Your task to perform on an android device: Add asus rog to the cart on amazon Image 0: 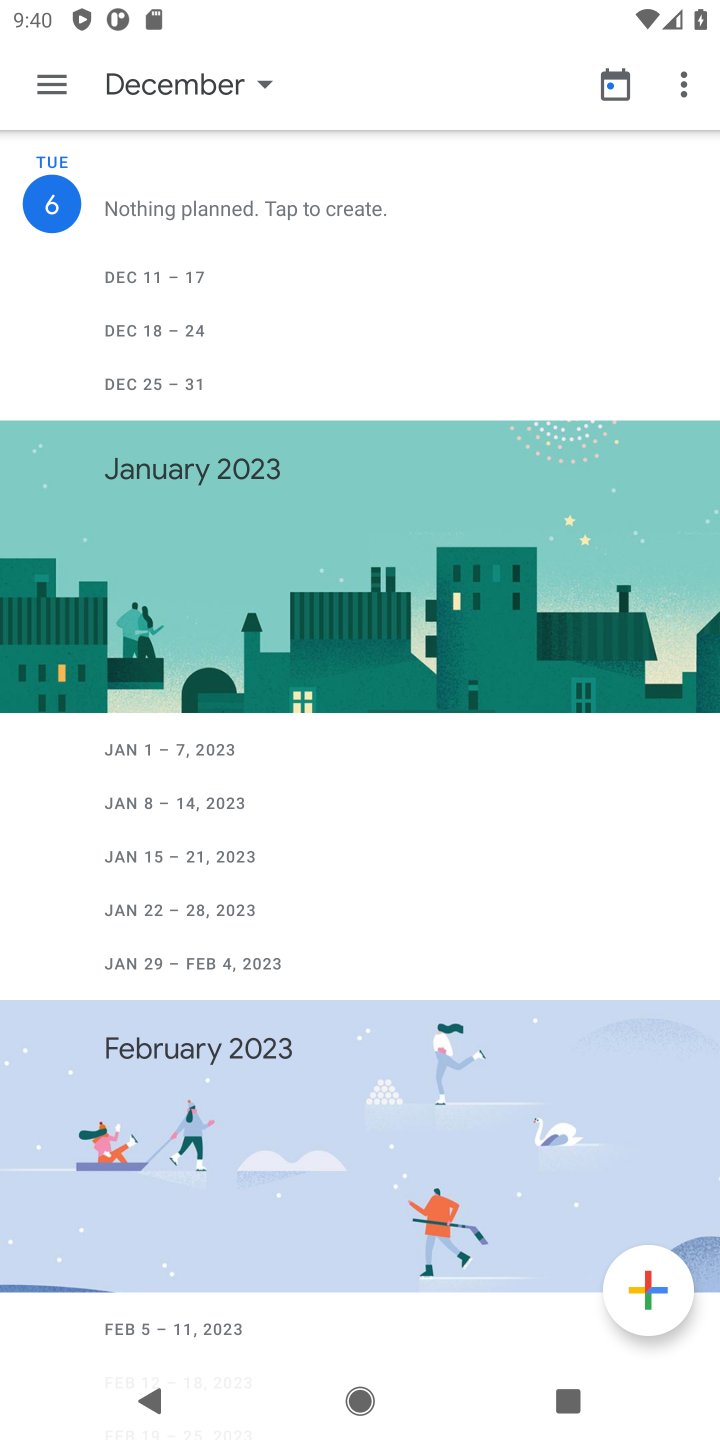
Step 0: press home button
Your task to perform on an android device: Add asus rog to the cart on amazon Image 1: 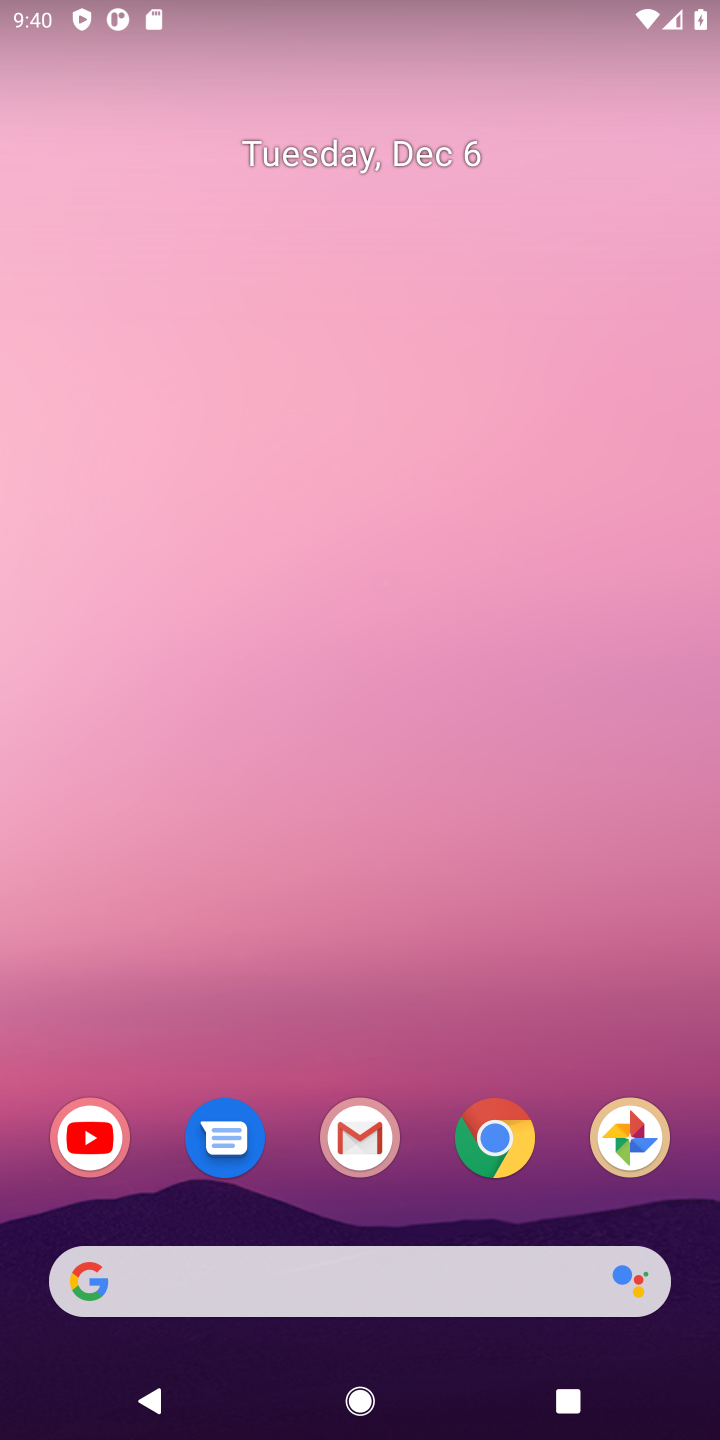
Step 1: click (491, 1139)
Your task to perform on an android device: Add asus rog to the cart on amazon Image 2: 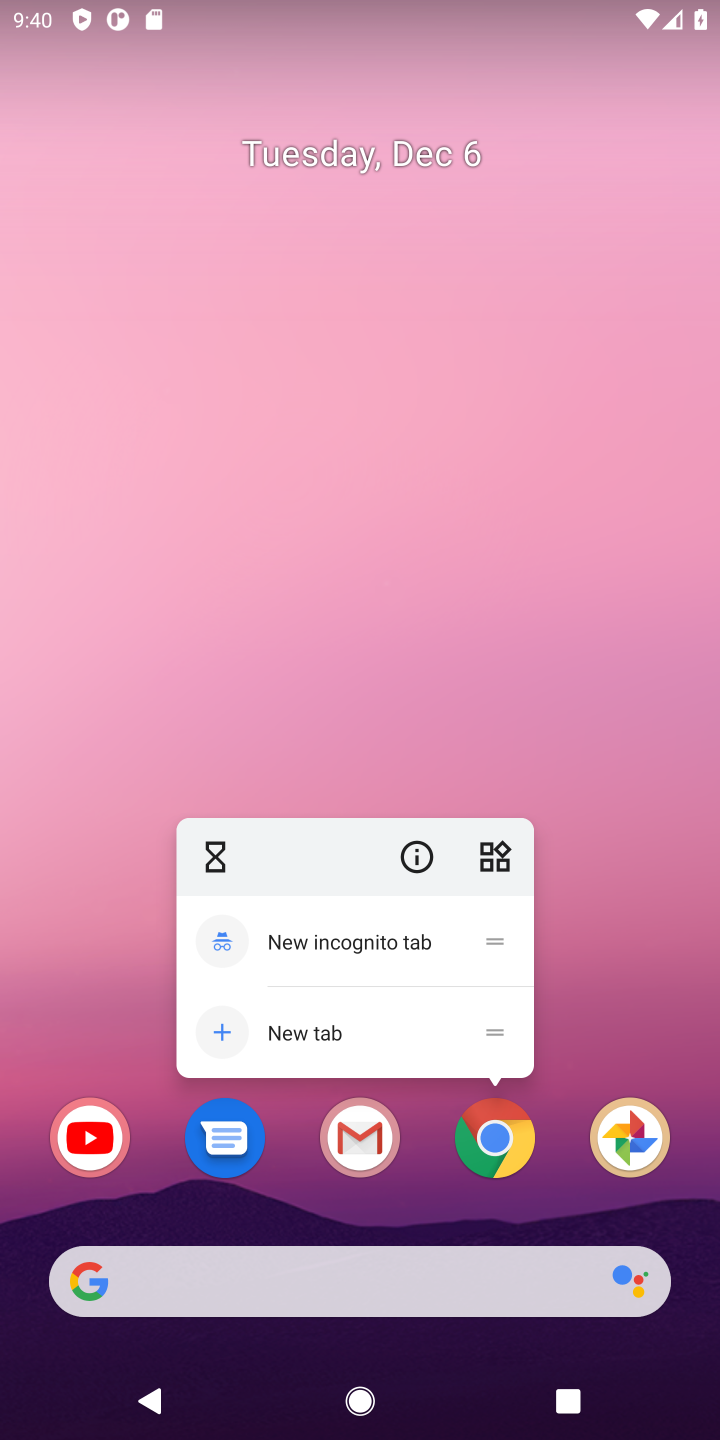
Step 2: click (511, 1147)
Your task to perform on an android device: Add asus rog to the cart on amazon Image 3: 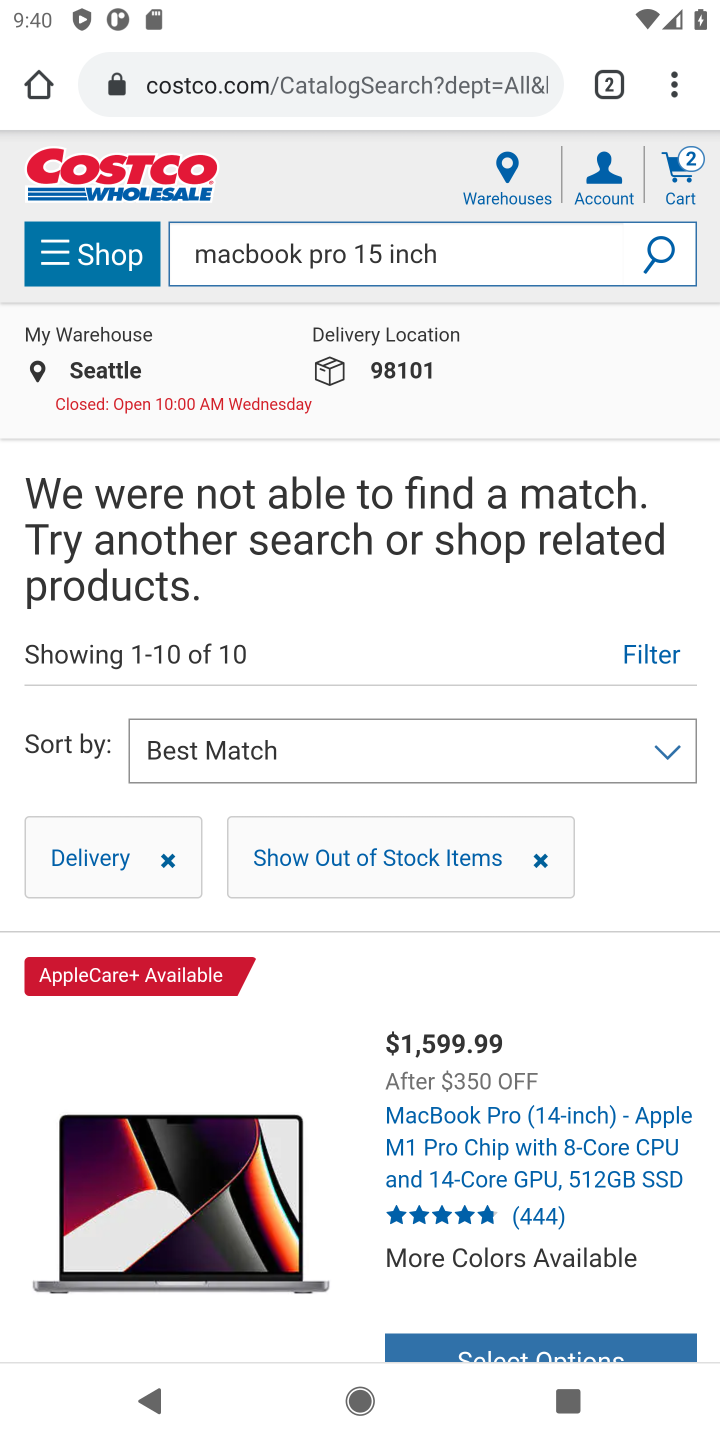
Step 3: click (320, 93)
Your task to perform on an android device: Add asus rog to the cart on amazon Image 4: 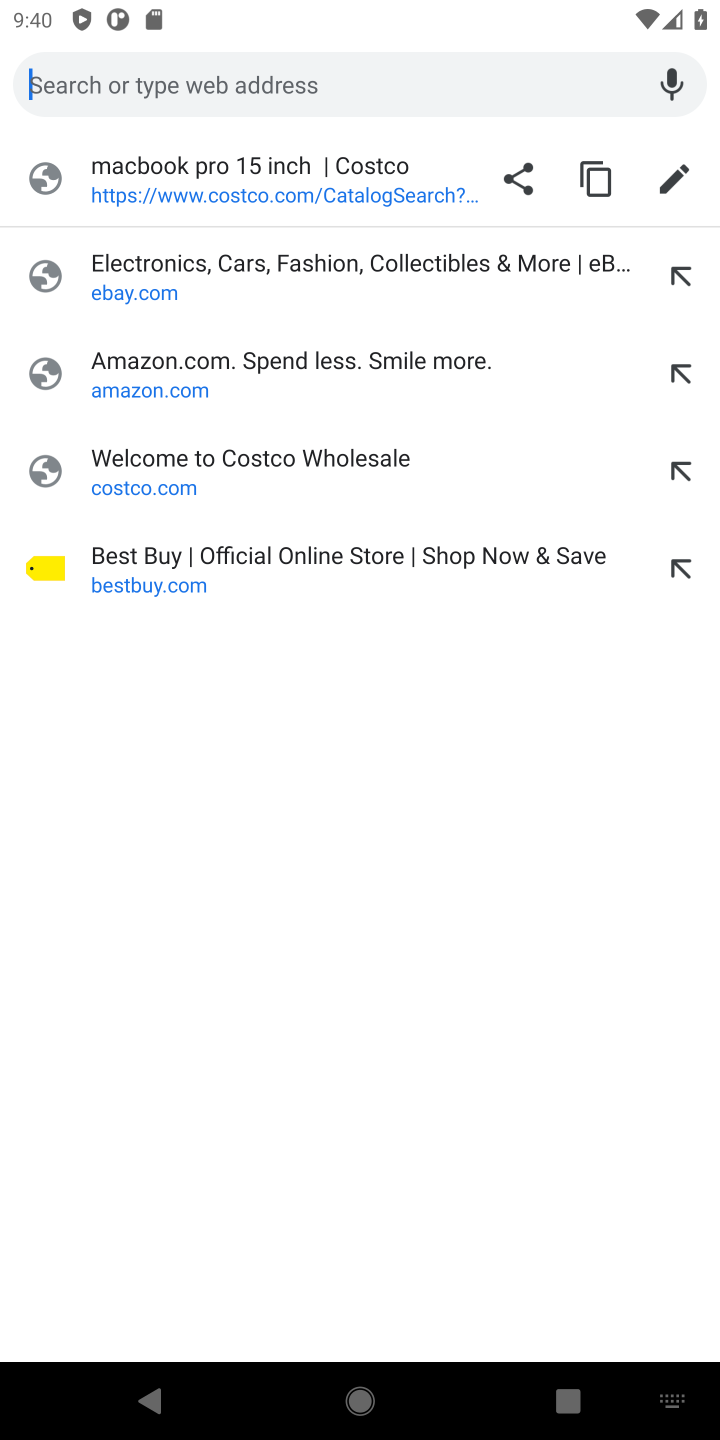
Step 4: click (134, 388)
Your task to perform on an android device: Add asus rog to the cart on amazon Image 5: 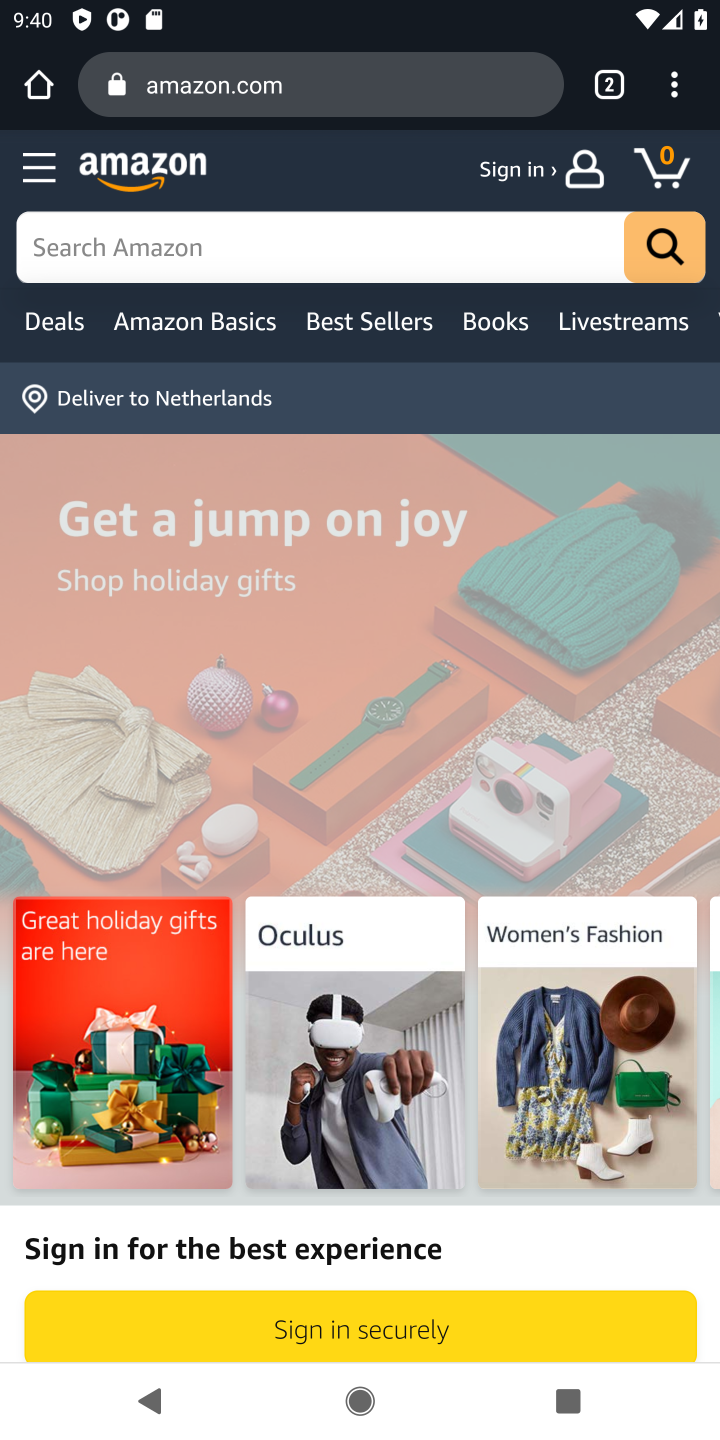
Step 5: click (95, 244)
Your task to perform on an android device: Add asus rog to the cart on amazon Image 6: 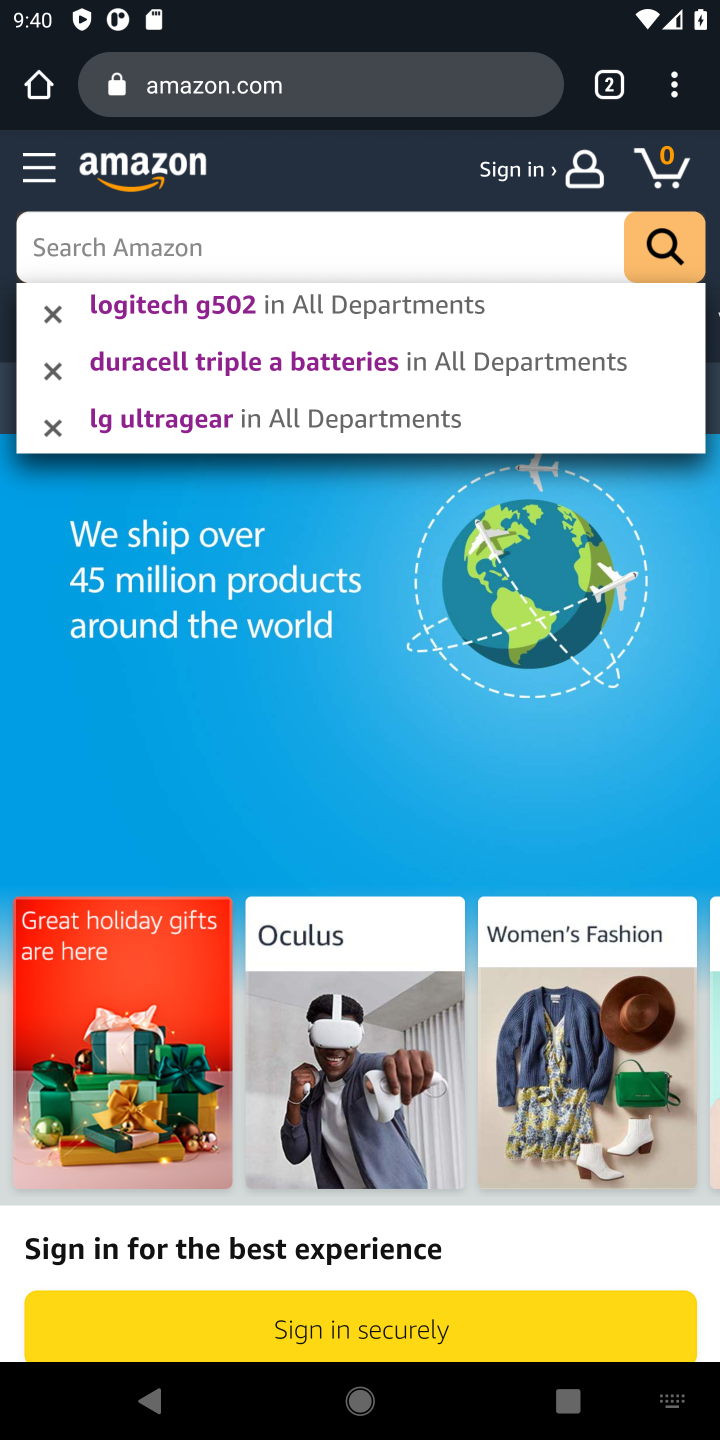
Step 6: type "asus rog"
Your task to perform on an android device: Add asus rog to the cart on amazon Image 7: 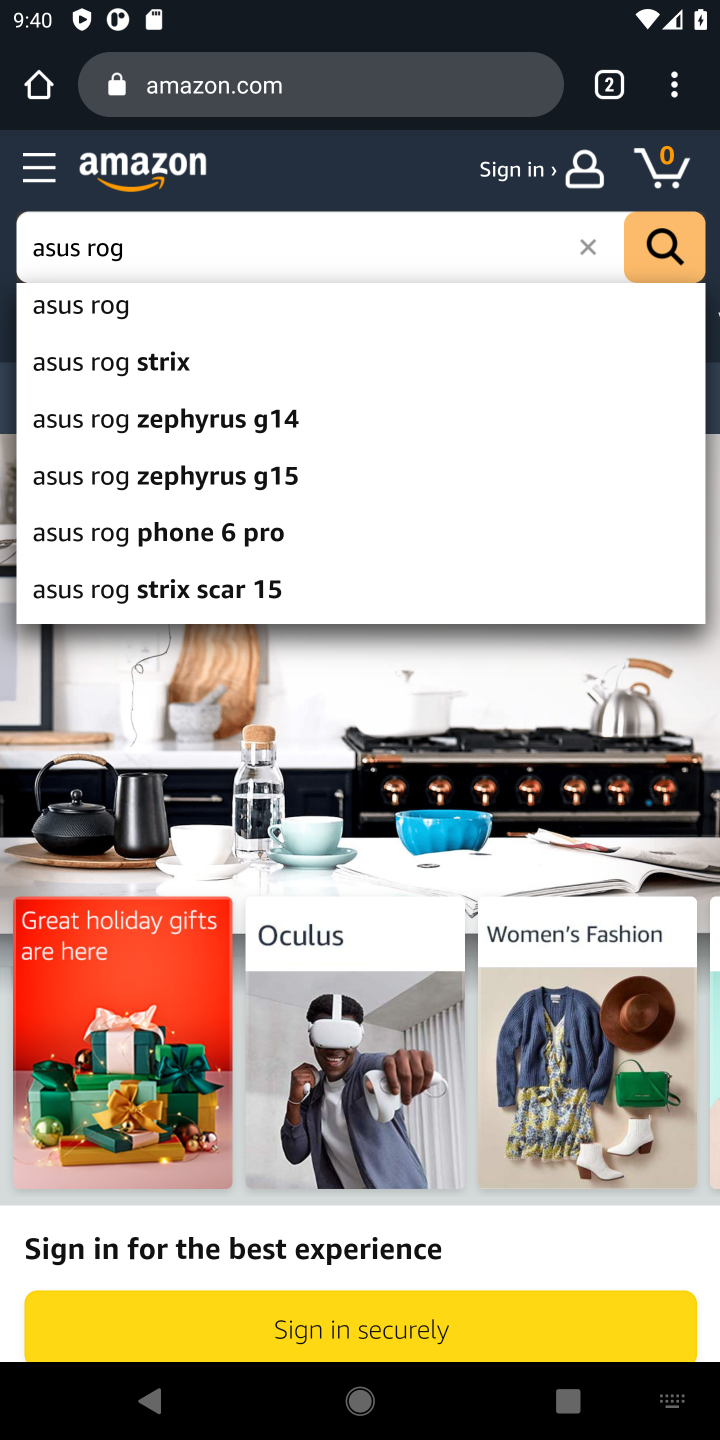
Step 7: click (60, 320)
Your task to perform on an android device: Add asus rog to the cart on amazon Image 8: 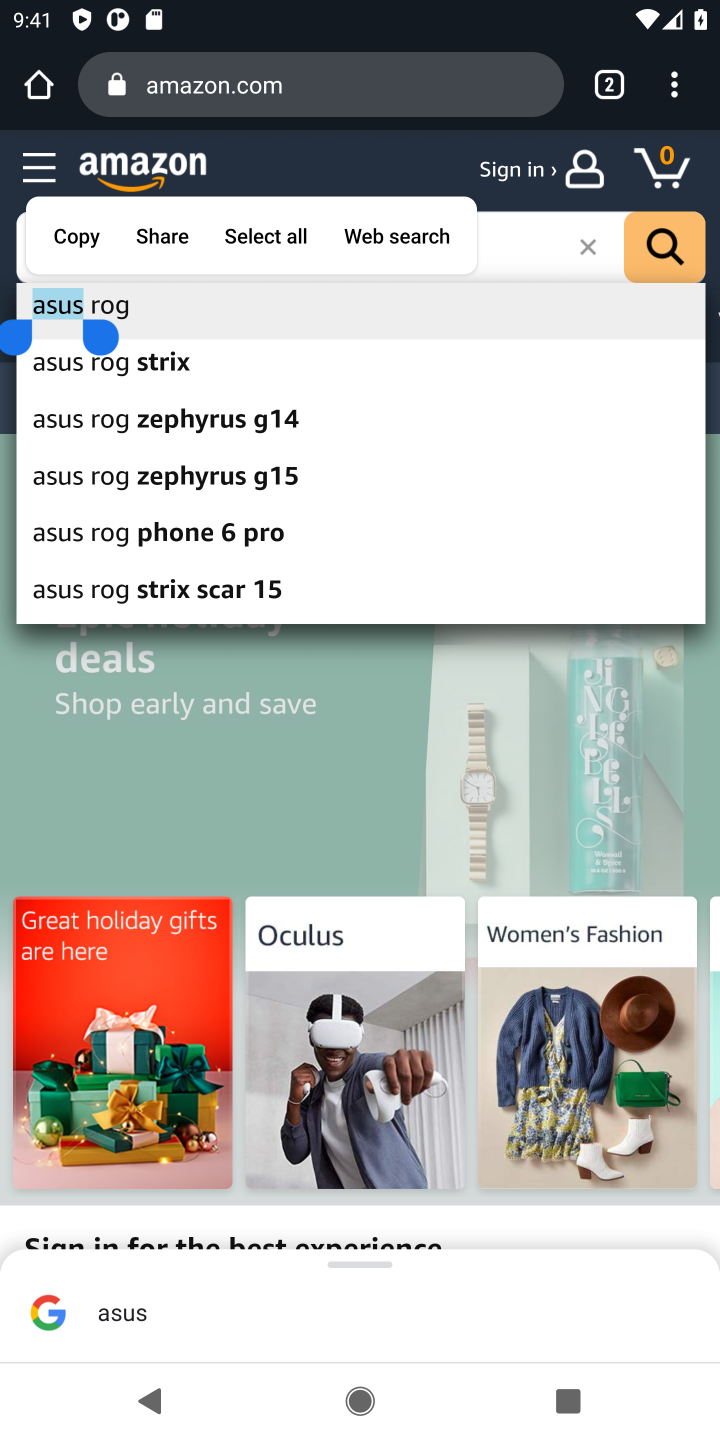
Step 8: click (105, 309)
Your task to perform on an android device: Add asus rog to the cart on amazon Image 9: 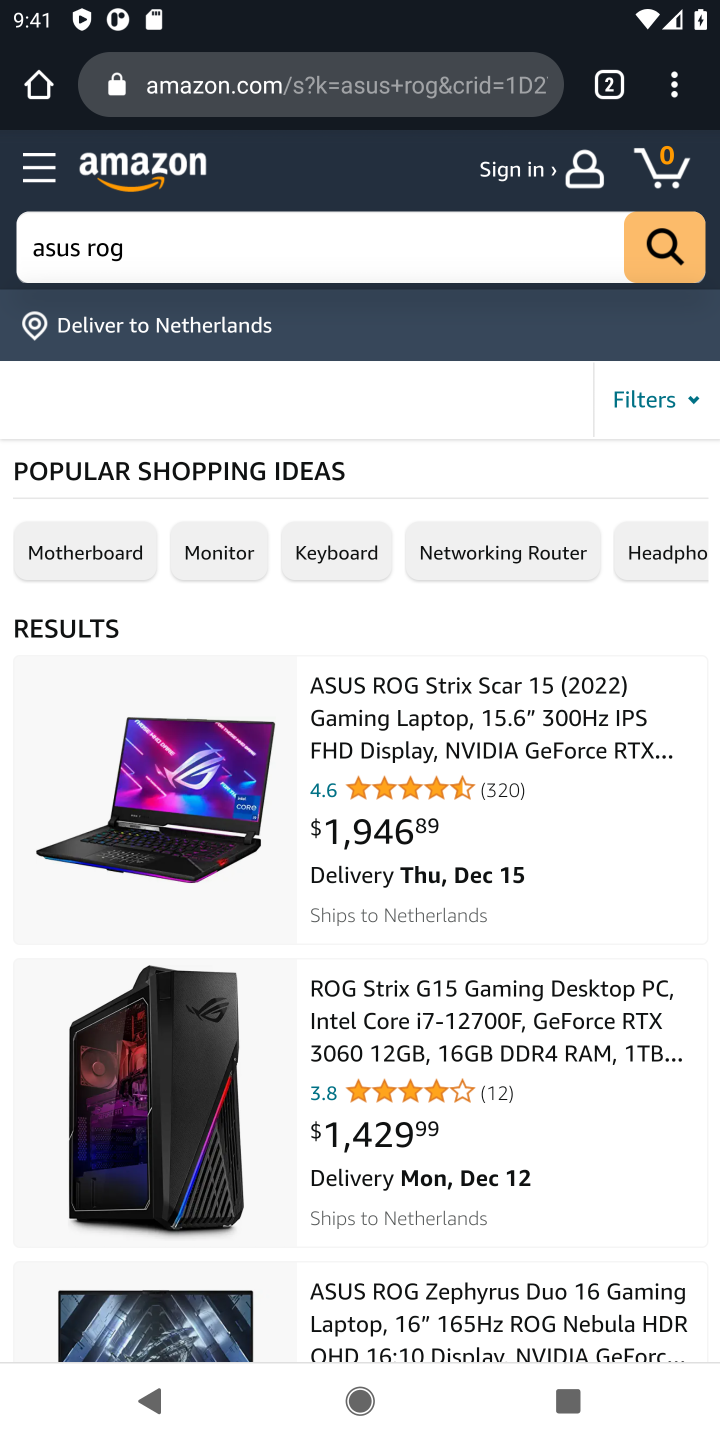
Step 9: click (354, 749)
Your task to perform on an android device: Add asus rog to the cart on amazon Image 10: 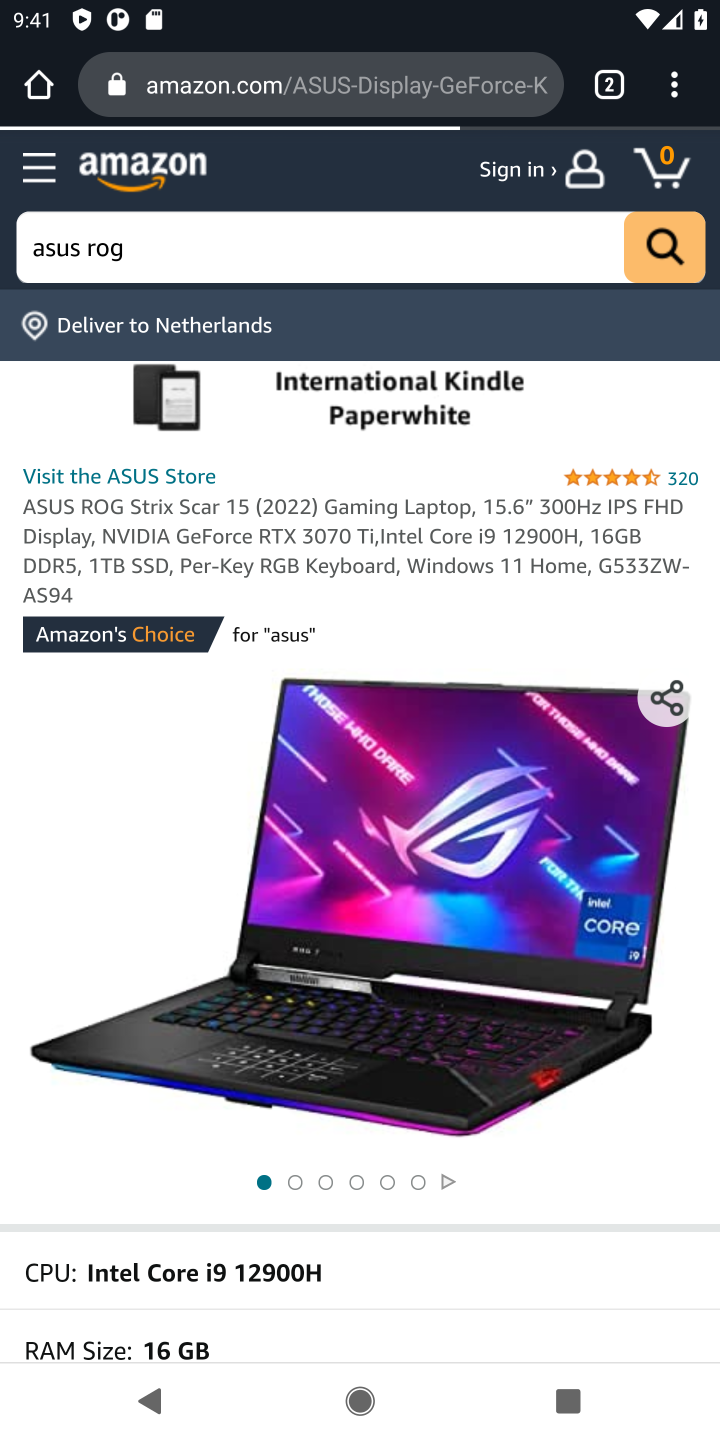
Step 10: drag from (492, 1147) to (482, 492)
Your task to perform on an android device: Add asus rog to the cart on amazon Image 11: 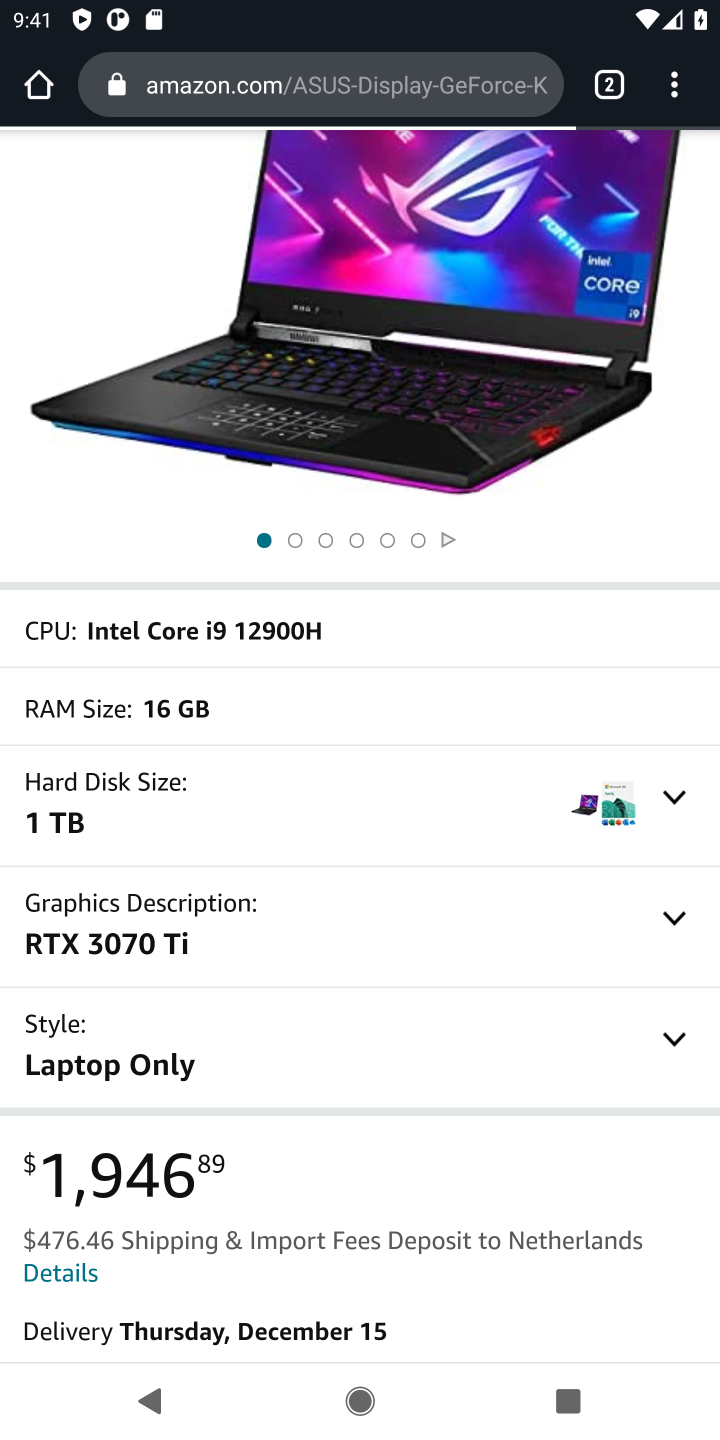
Step 11: drag from (395, 976) to (394, 685)
Your task to perform on an android device: Add asus rog to the cart on amazon Image 12: 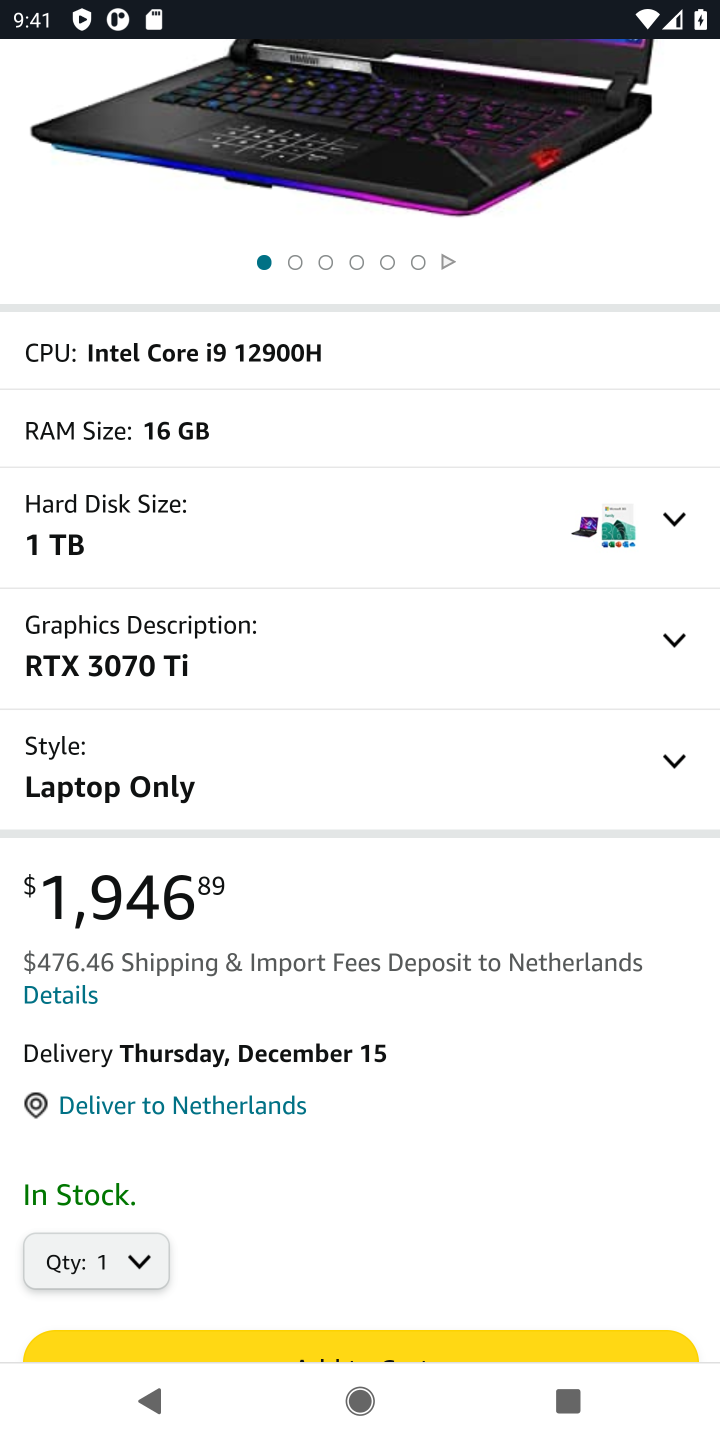
Step 12: drag from (383, 1030) to (392, 707)
Your task to perform on an android device: Add asus rog to the cart on amazon Image 13: 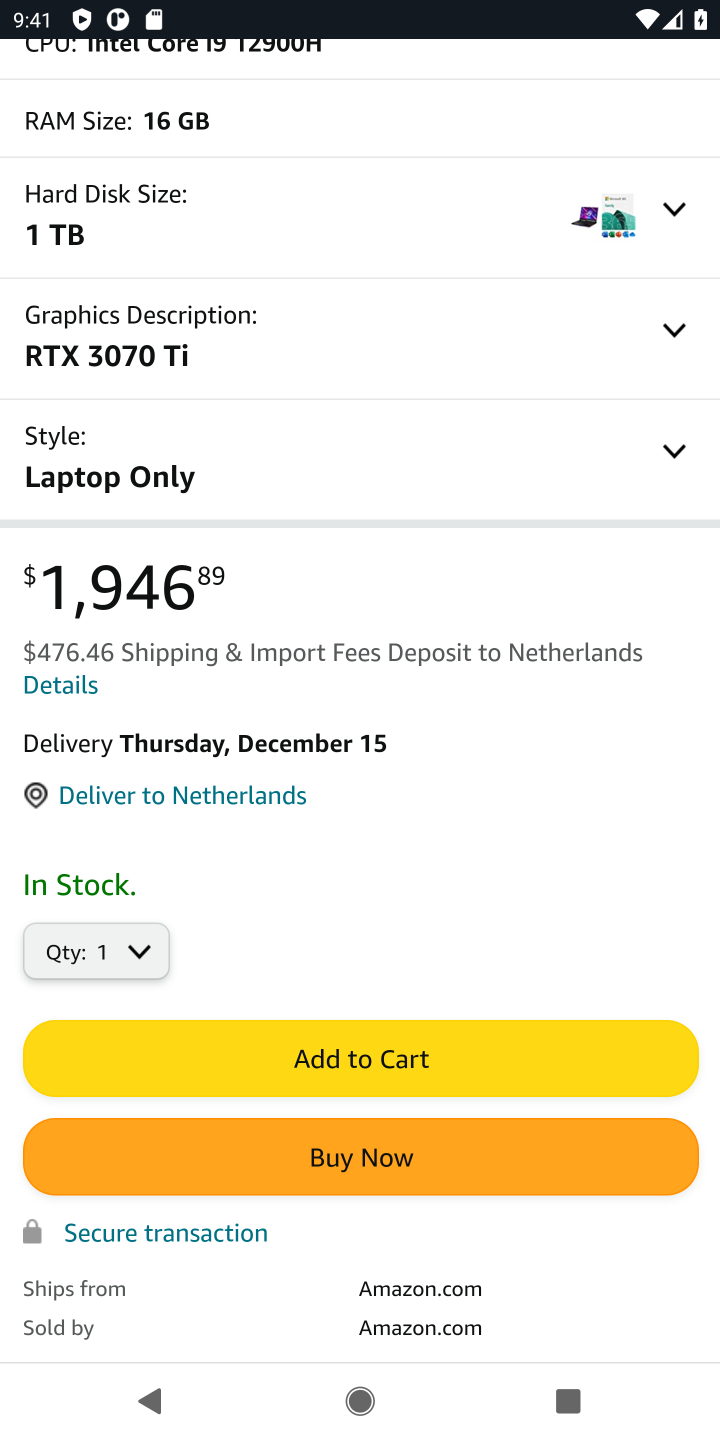
Step 13: click (327, 1064)
Your task to perform on an android device: Add asus rog to the cart on amazon Image 14: 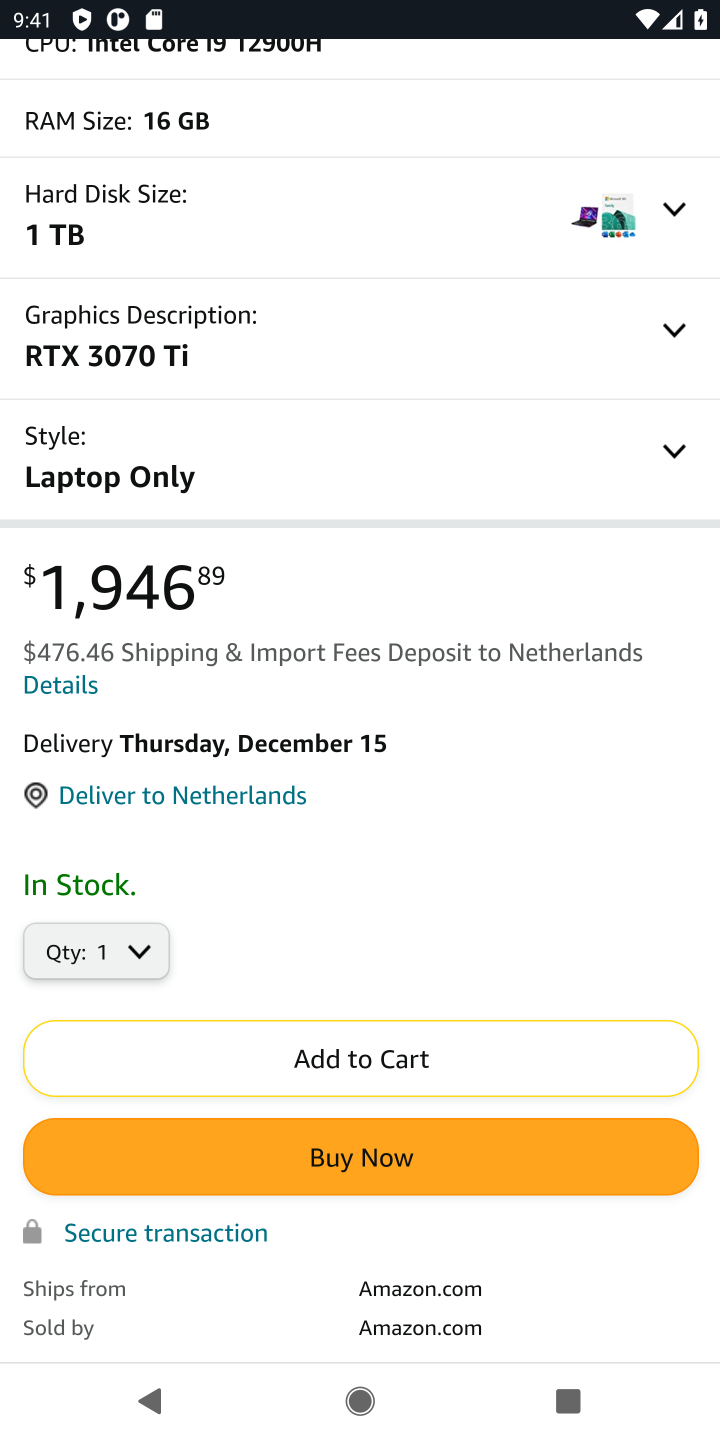
Step 14: click (381, 1050)
Your task to perform on an android device: Add asus rog to the cart on amazon Image 15: 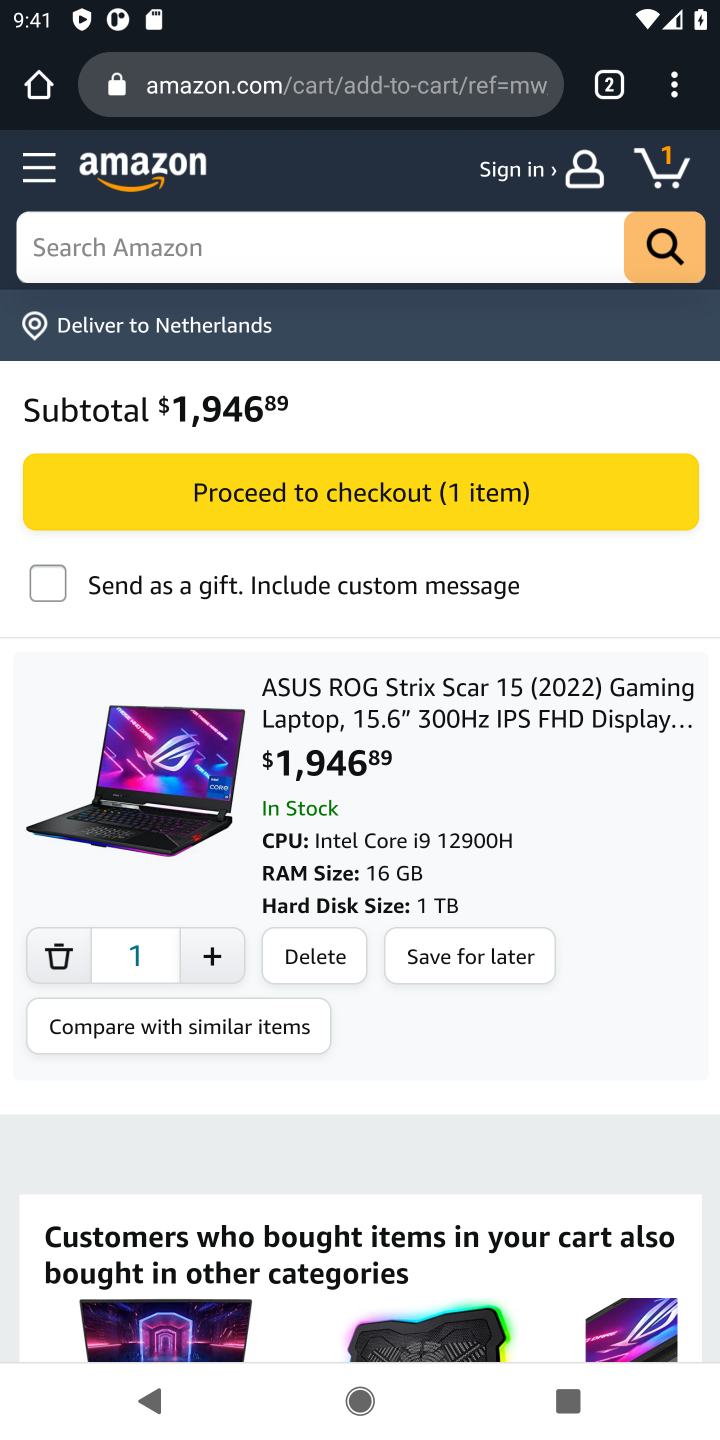
Step 15: task complete